Your task to perform on an android device: Search for sushi restaurants on Maps Image 0: 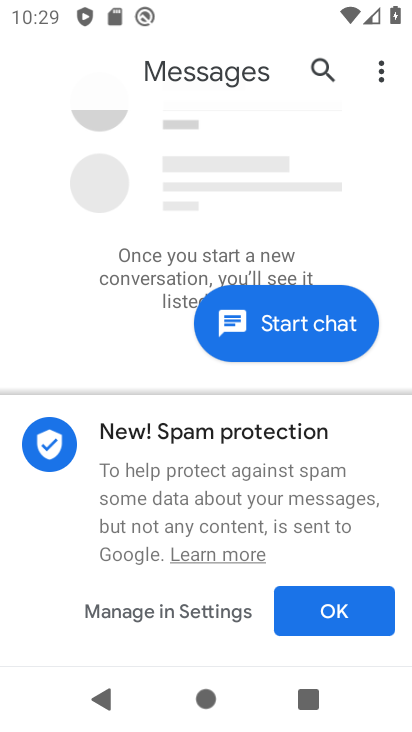
Step 0: press home button
Your task to perform on an android device: Search for sushi restaurants on Maps Image 1: 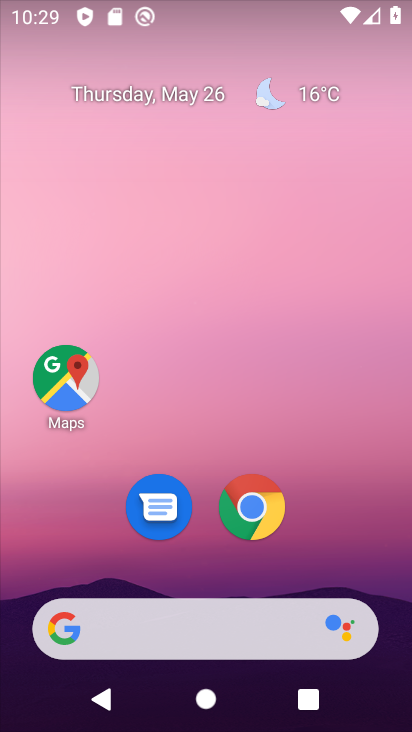
Step 1: click (76, 390)
Your task to perform on an android device: Search for sushi restaurants on Maps Image 2: 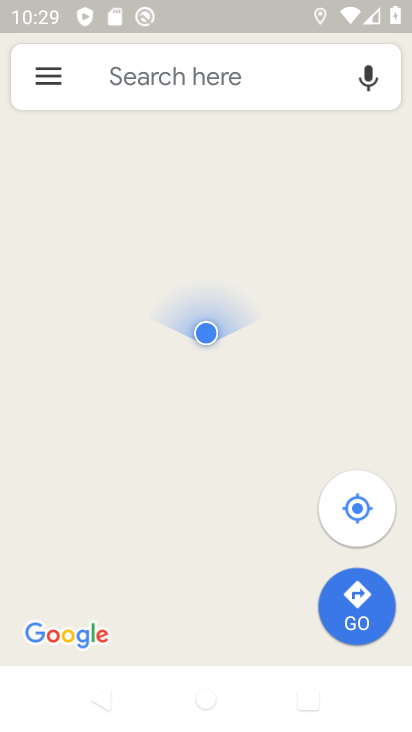
Step 2: click (122, 69)
Your task to perform on an android device: Search for sushi restaurants on Maps Image 3: 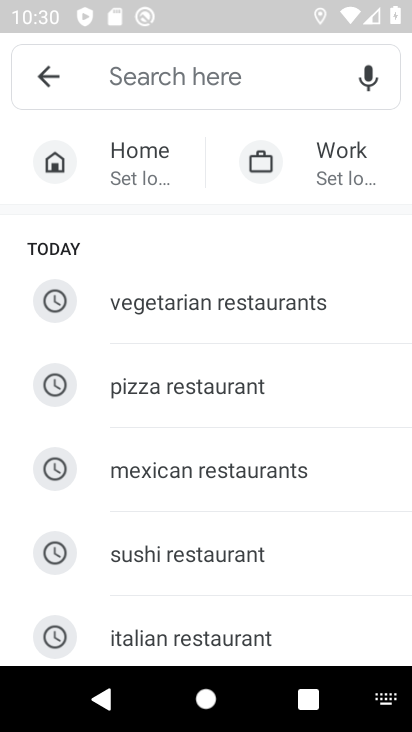
Step 3: click (148, 553)
Your task to perform on an android device: Search for sushi restaurants on Maps Image 4: 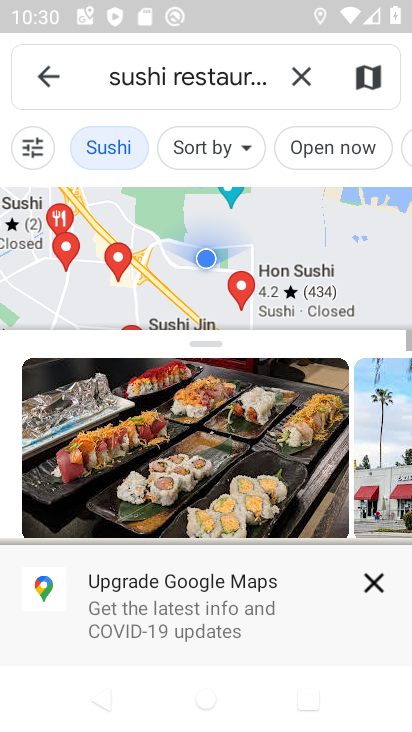
Step 4: task complete